Your task to perform on an android device: toggle javascript in the chrome app Image 0: 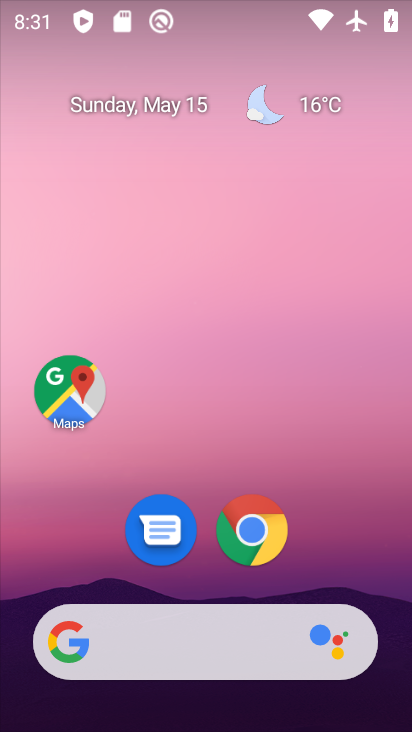
Step 0: click (230, 530)
Your task to perform on an android device: toggle javascript in the chrome app Image 1: 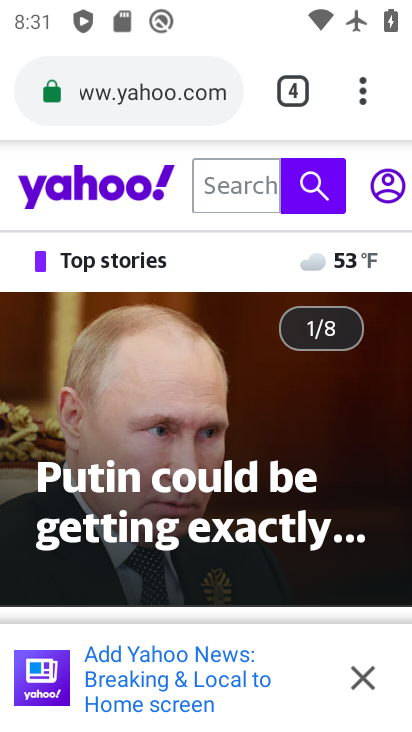
Step 1: click (366, 96)
Your task to perform on an android device: toggle javascript in the chrome app Image 2: 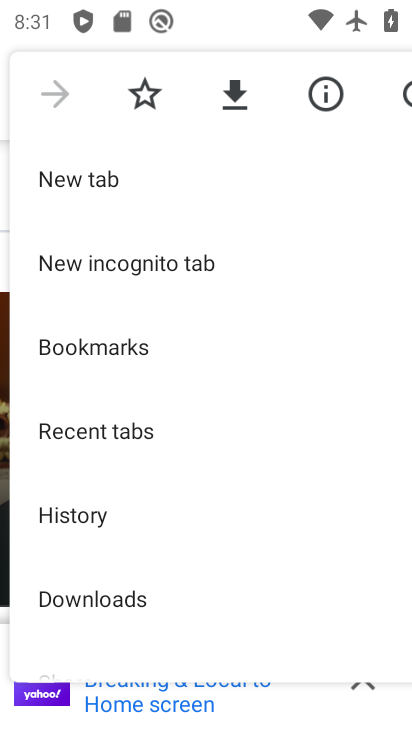
Step 2: drag from (194, 601) to (188, 212)
Your task to perform on an android device: toggle javascript in the chrome app Image 3: 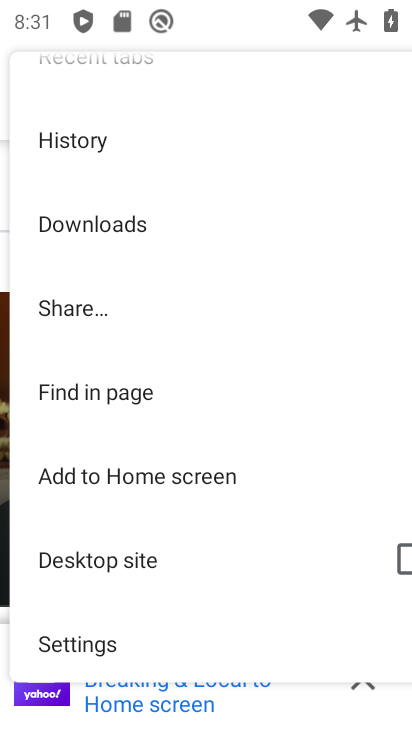
Step 3: drag from (102, 633) to (102, 170)
Your task to perform on an android device: toggle javascript in the chrome app Image 4: 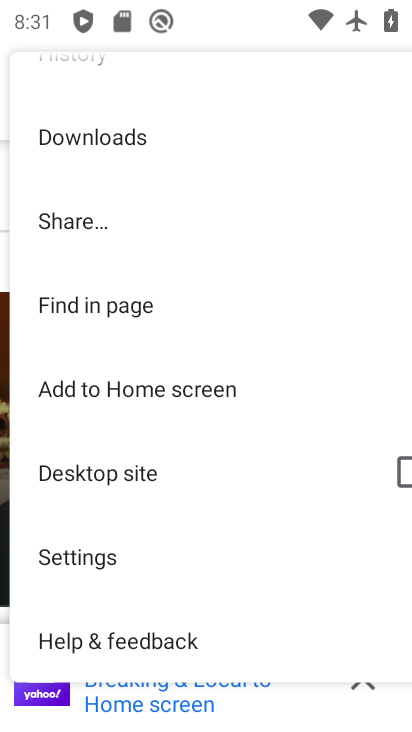
Step 4: click (69, 551)
Your task to perform on an android device: toggle javascript in the chrome app Image 5: 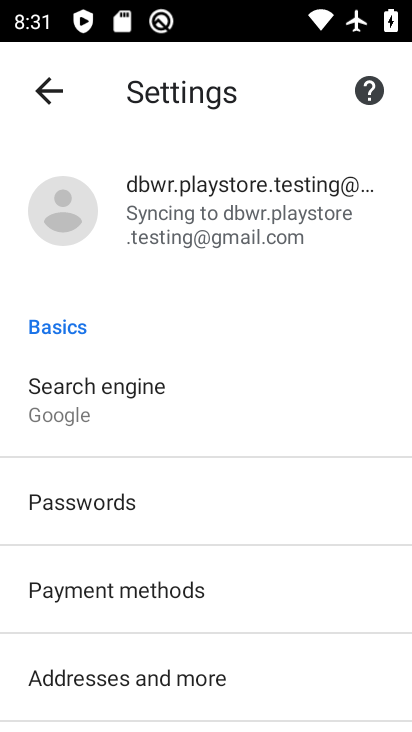
Step 5: drag from (96, 646) to (108, 133)
Your task to perform on an android device: toggle javascript in the chrome app Image 6: 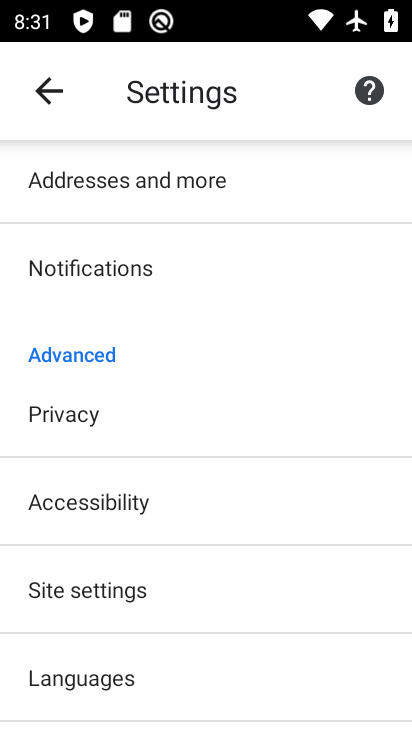
Step 6: click (119, 590)
Your task to perform on an android device: toggle javascript in the chrome app Image 7: 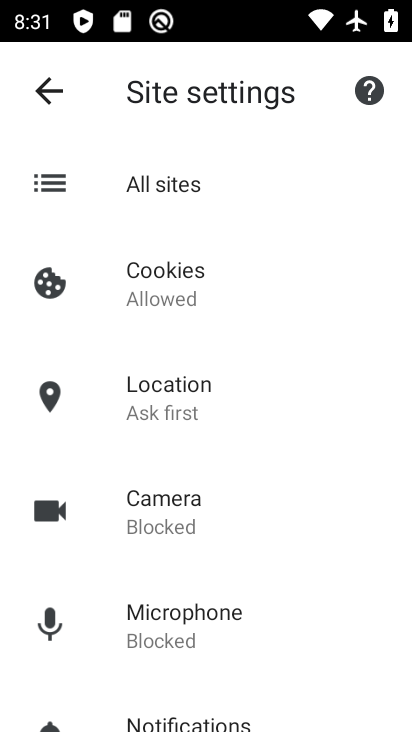
Step 7: drag from (178, 646) to (178, 269)
Your task to perform on an android device: toggle javascript in the chrome app Image 8: 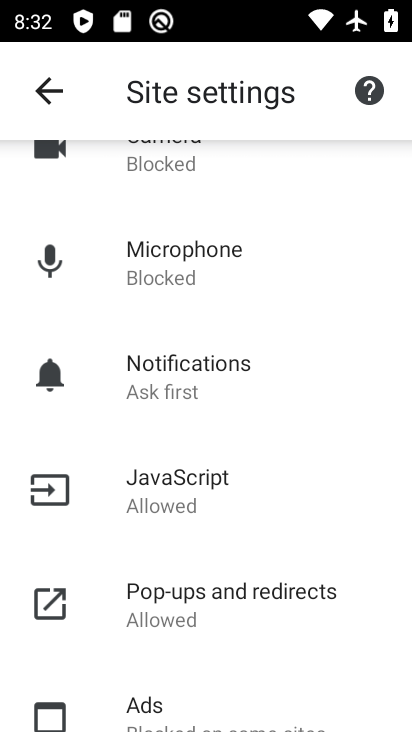
Step 8: click (179, 487)
Your task to perform on an android device: toggle javascript in the chrome app Image 9: 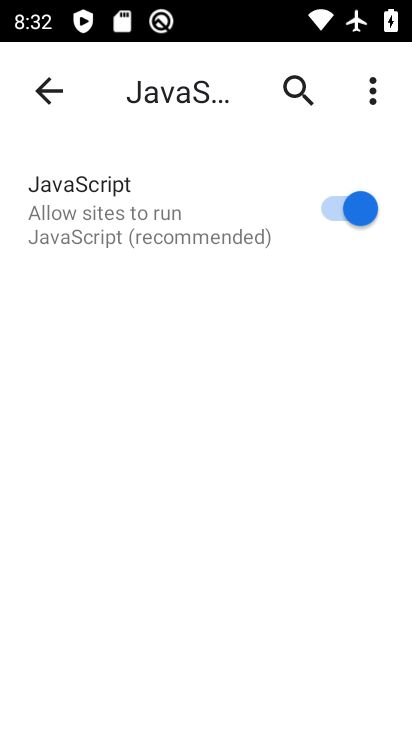
Step 9: click (332, 219)
Your task to perform on an android device: toggle javascript in the chrome app Image 10: 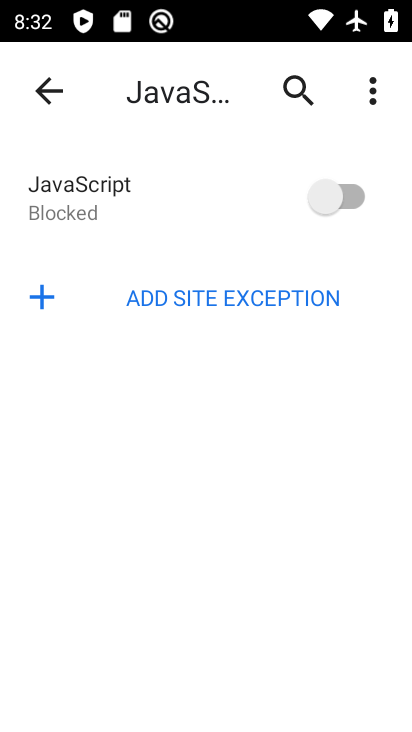
Step 10: task complete